Your task to perform on an android device: check battery use Image 0: 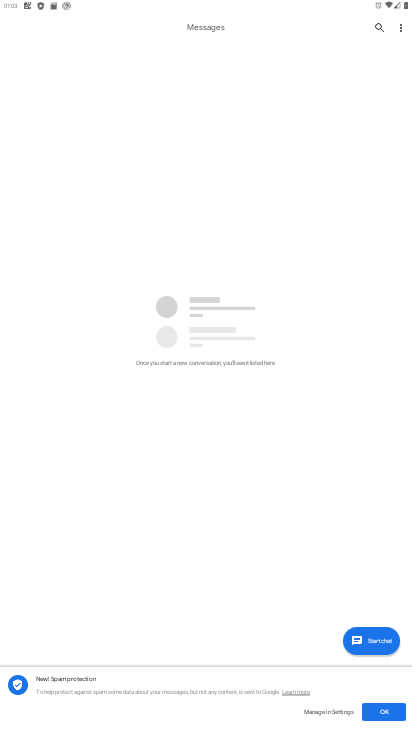
Step 0: press home button
Your task to perform on an android device: check battery use Image 1: 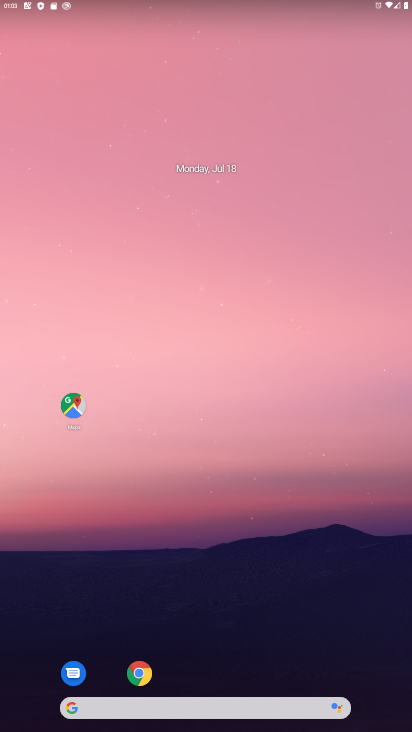
Step 1: drag from (263, 671) to (169, 119)
Your task to perform on an android device: check battery use Image 2: 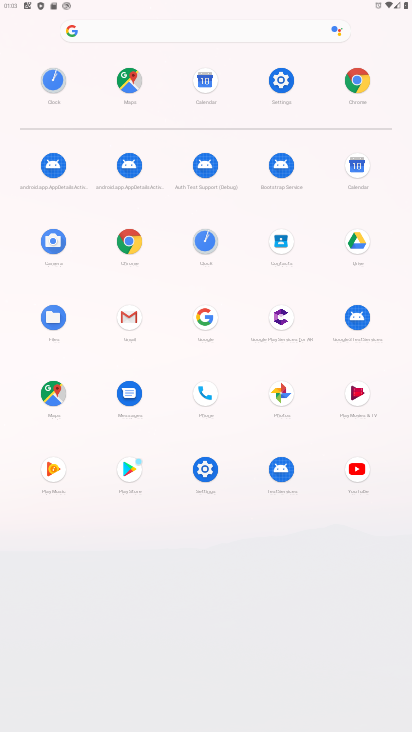
Step 2: click (290, 94)
Your task to perform on an android device: check battery use Image 3: 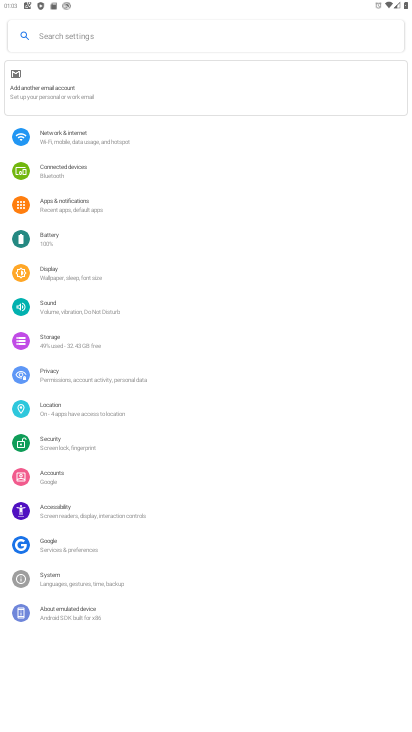
Step 3: click (113, 239)
Your task to perform on an android device: check battery use Image 4: 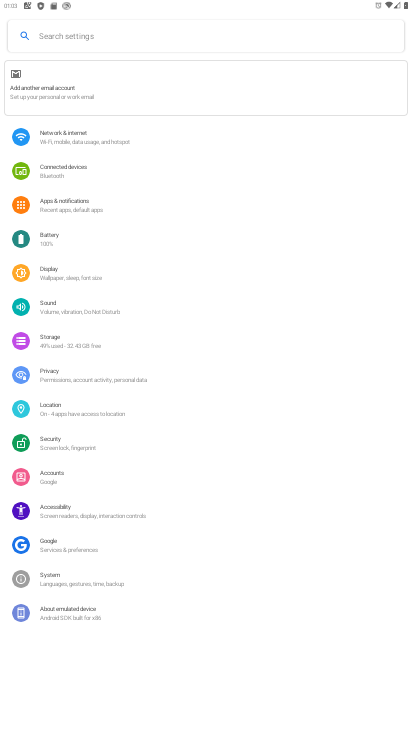
Step 4: click (113, 239)
Your task to perform on an android device: check battery use Image 5: 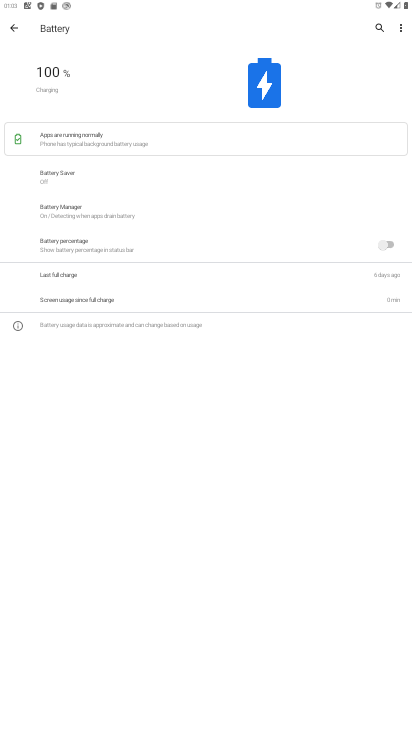
Step 5: task complete